Your task to perform on an android device: Open internet settings Image 0: 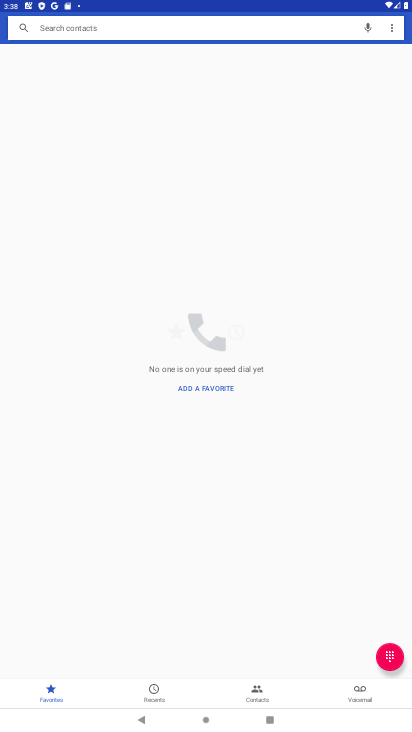
Step 0: press home button
Your task to perform on an android device: Open internet settings Image 1: 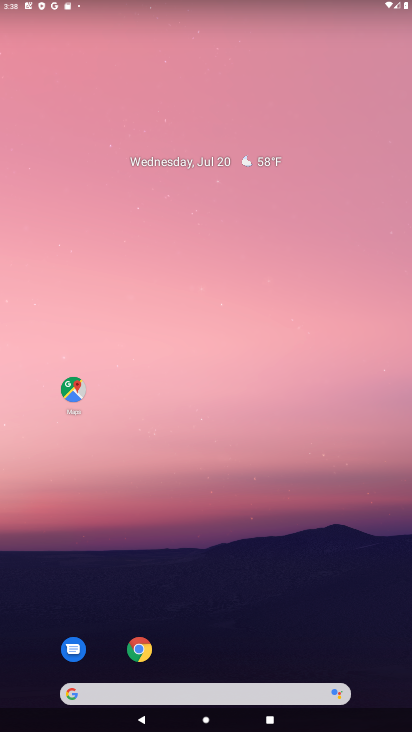
Step 1: drag from (233, 725) to (217, 220)
Your task to perform on an android device: Open internet settings Image 2: 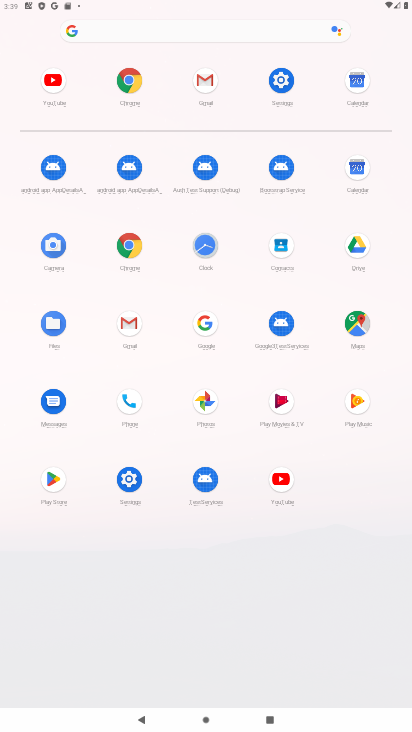
Step 2: click (278, 83)
Your task to perform on an android device: Open internet settings Image 3: 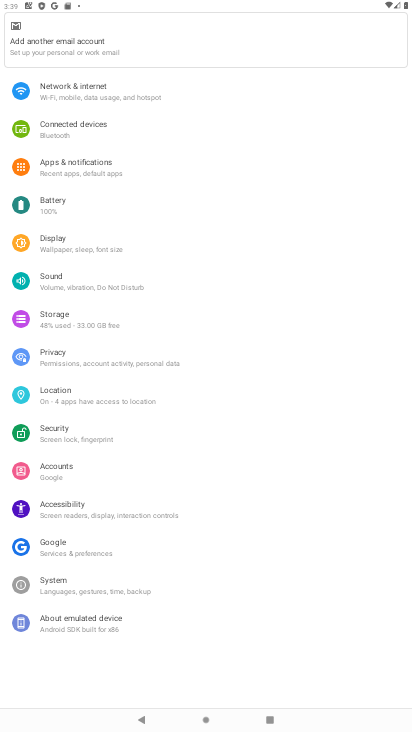
Step 3: click (51, 94)
Your task to perform on an android device: Open internet settings Image 4: 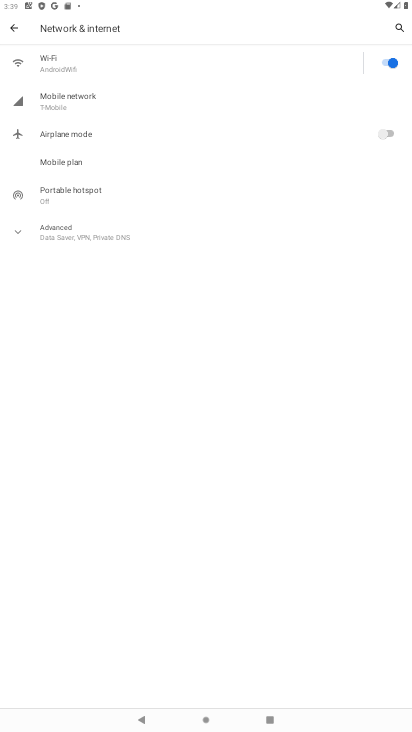
Step 4: task complete